Your task to perform on an android device: check data usage Image 0: 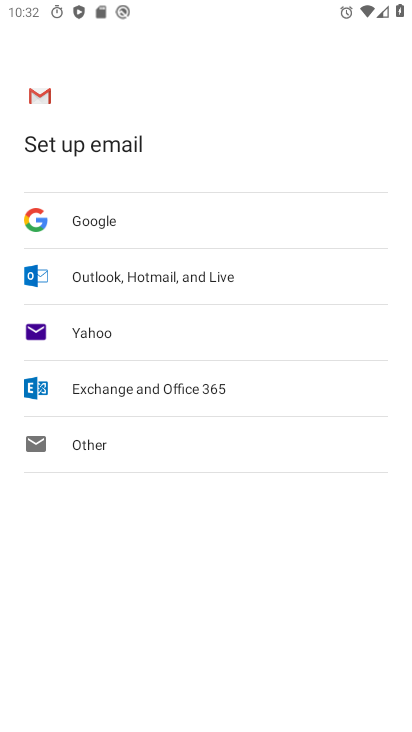
Step 0: press home button
Your task to perform on an android device: check data usage Image 1: 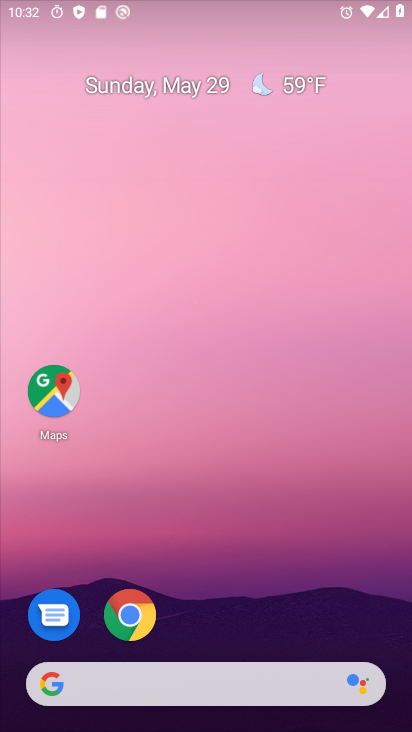
Step 1: drag from (238, 605) to (282, 51)
Your task to perform on an android device: check data usage Image 2: 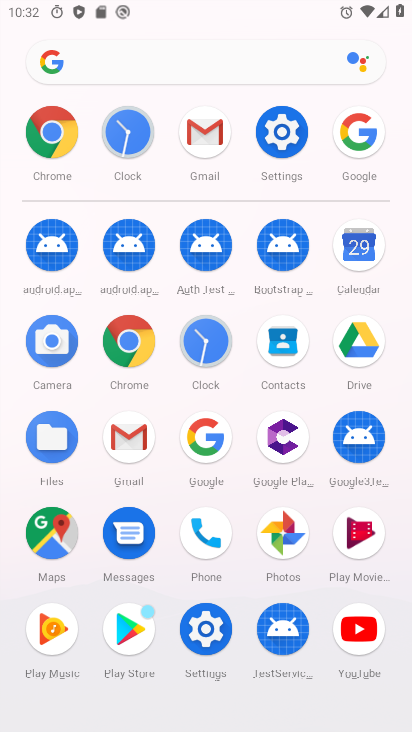
Step 2: click (272, 124)
Your task to perform on an android device: check data usage Image 3: 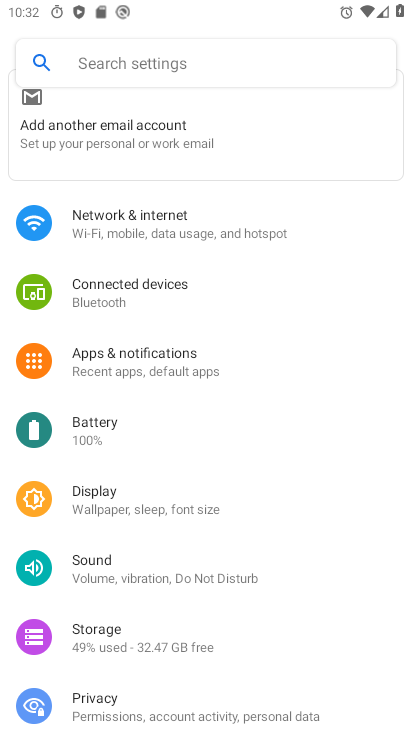
Step 3: click (150, 228)
Your task to perform on an android device: check data usage Image 4: 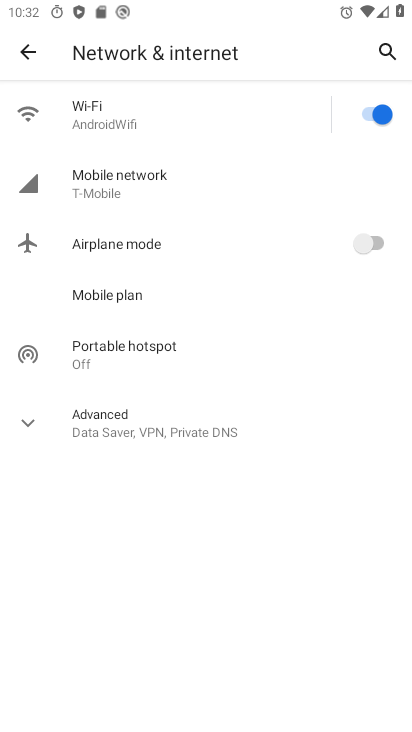
Step 4: click (136, 184)
Your task to perform on an android device: check data usage Image 5: 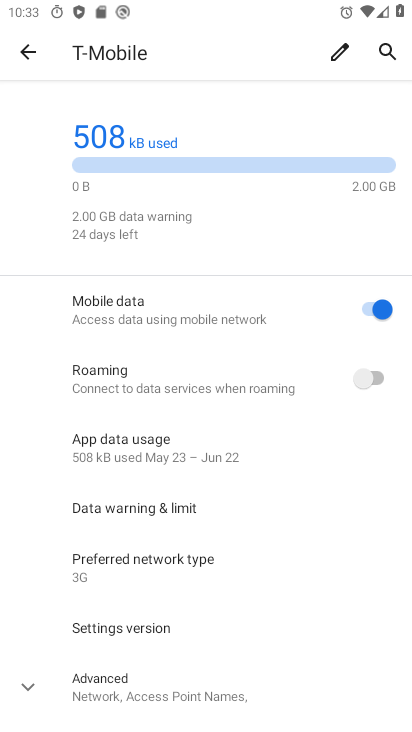
Step 5: task complete